Your task to perform on an android device: open chrome and create a bookmark for the current page Image 0: 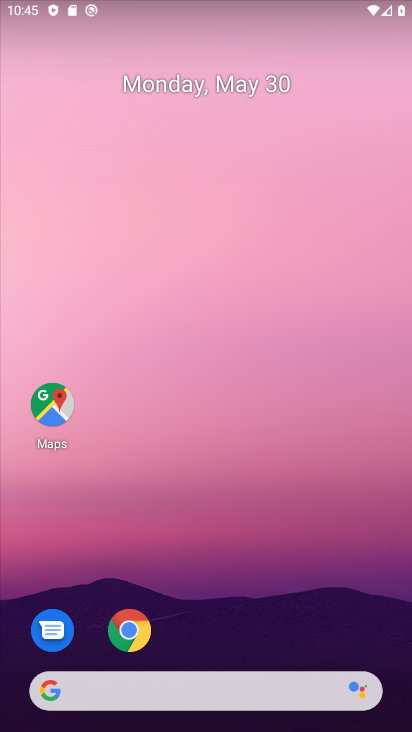
Step 0: click (132, 624)
Your task to perform on an android device: open chrome and create a bookmark for the current page Image 1: 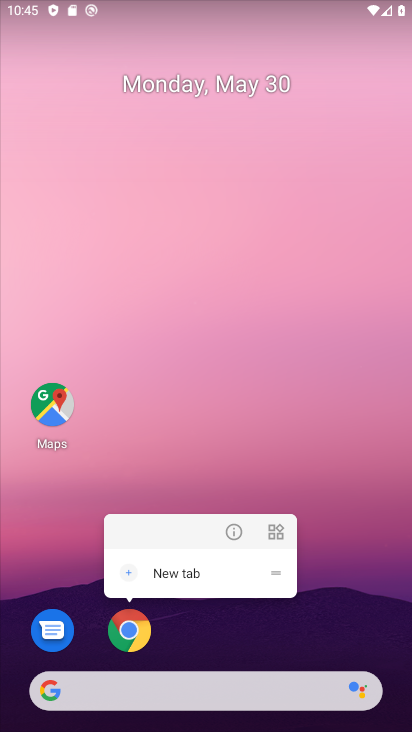
Step 1: click (135, 623)
Your task to perform on an android device: open chrome and create a bookmark for the current page Image 2: 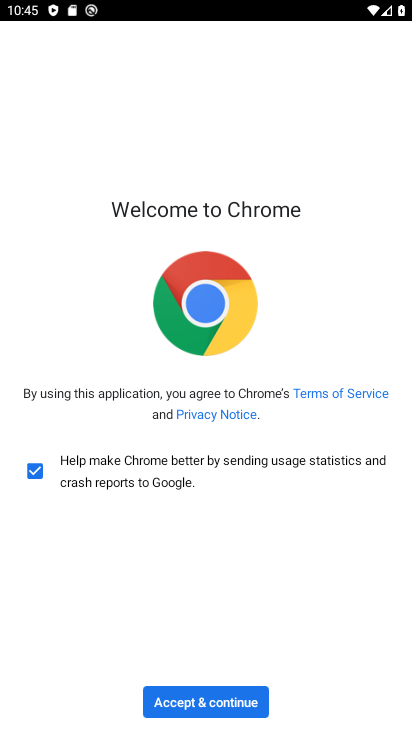
Step 2: click (191, 704)
Your task to perform on an android device: open chrome and create a bookmark for the current page Image 3: 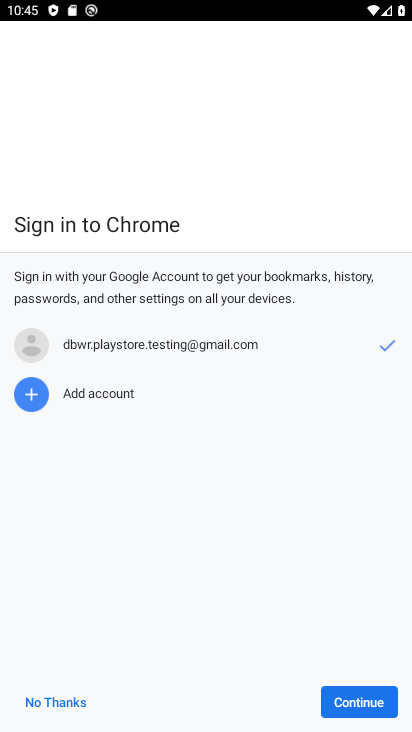
Step 3: click (369, 701)
Your task to perform on an android device: open chrome and create a bookmark for the current page Image 4: 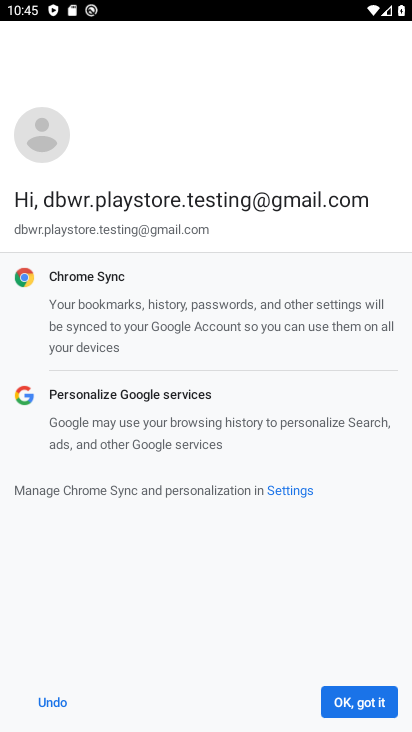
Step 4: click (369, 701)
Your task to perform on an android device: open chrome and create a bookmark for the current page Image 5: 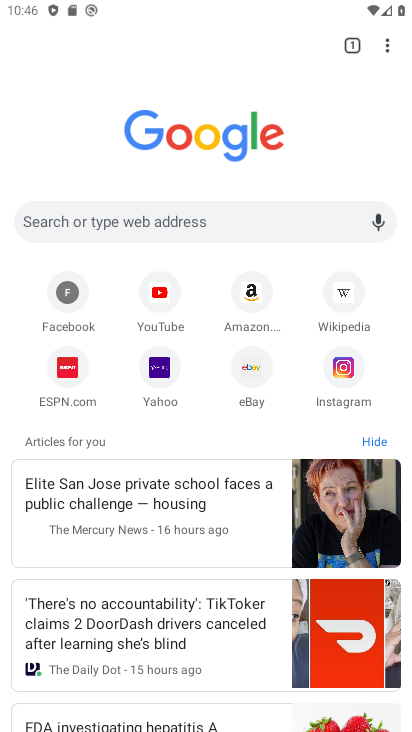
Step 5: click (384, 44)
Your task to perform on an android device: open chrome and create a bookmark for the current page Image 6: 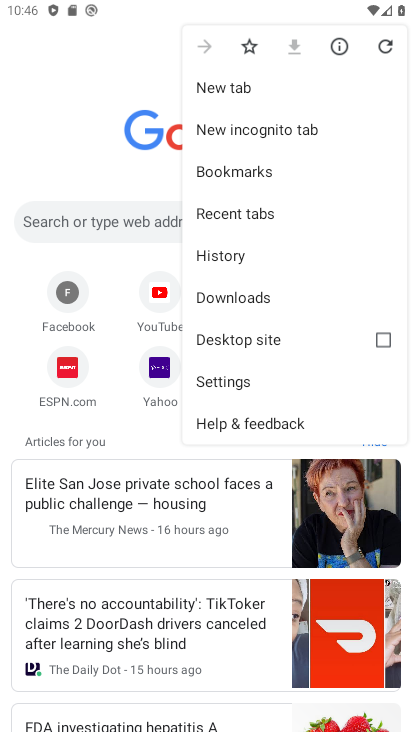
Step 6: click (247, 46)
Your task to perform on an android device: open chrome and create a bookmark for the current page Image 7: 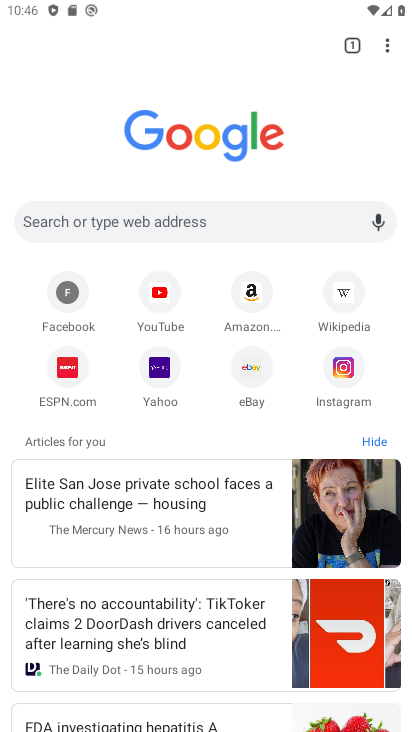
Step 7: task complete